Your task to perform on an android device: search for starred emails in the gmail app Image 0: 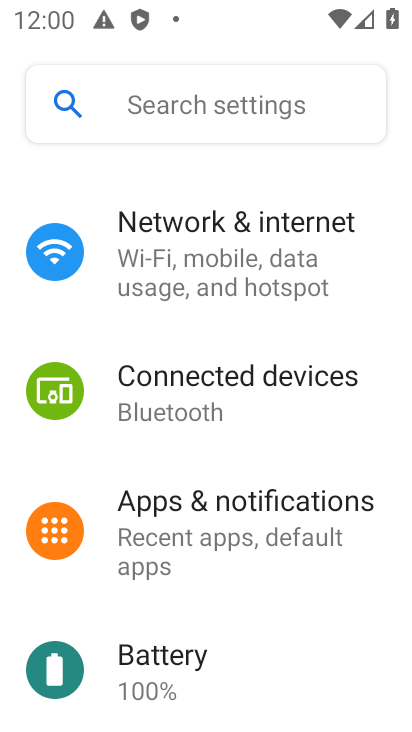
Step 0: press home button
Your task to perform on an android device: search for starred emails in the gmail app Image 1: 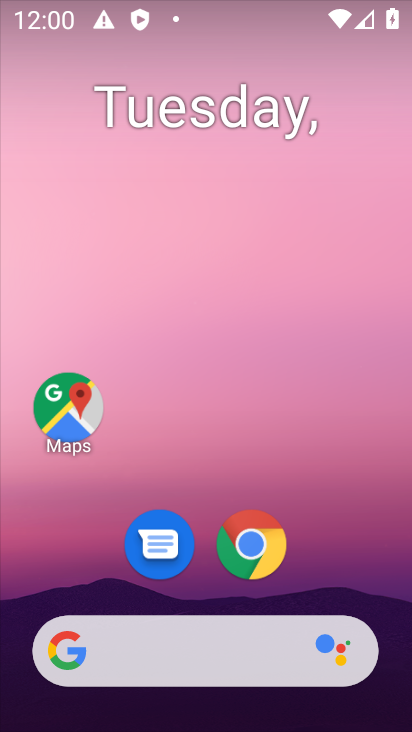
Step 1: drag from (338, 470) to (147, 27)
Your task to perform on an android device: search for starred emails in the gmail app Image 2: 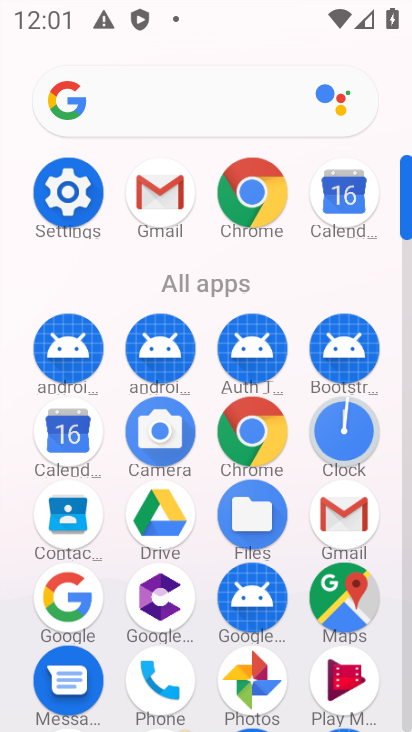
Step 2: click (169, 193)
Your task to perform on an android device: search for starred emails in the gmail app Image 3: 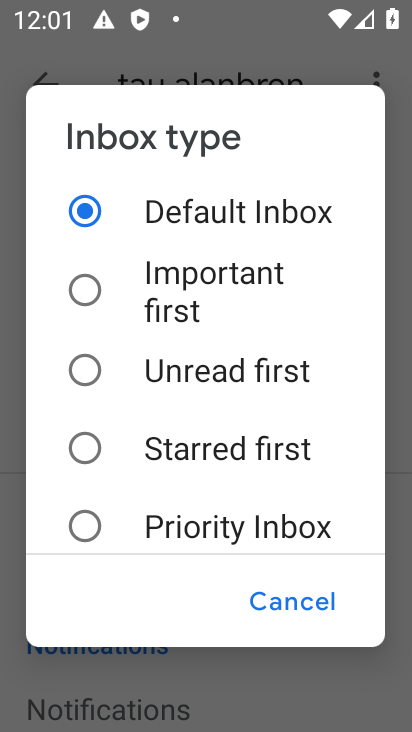
Step 3: click (289, 600)
Your task to perform on an android device: search for starred emails in the gmail app Image 4: 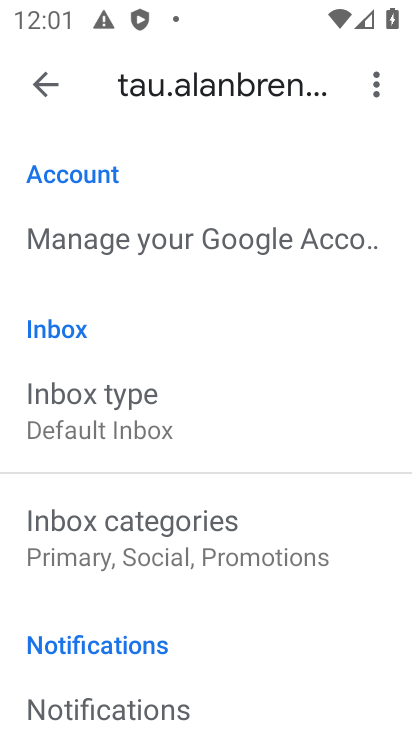
Step 4: click (39, 69)
Your task to perform on an android device: search for starred emails in the gmail app Image 5: 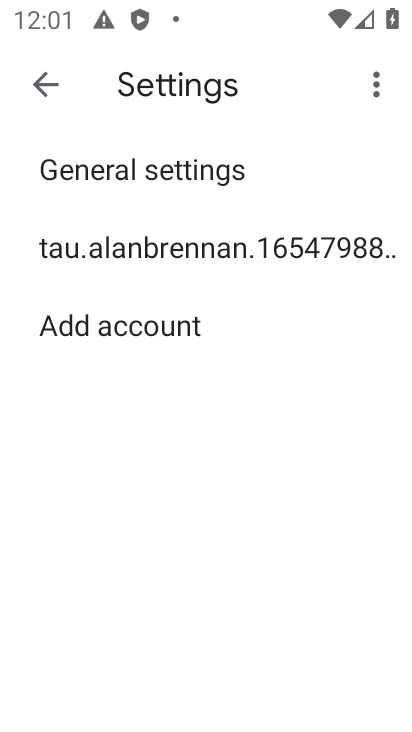
Step 5: click (48, 85)
Your task to perform on an android device: search for starred emails in the gmail app Image 6: 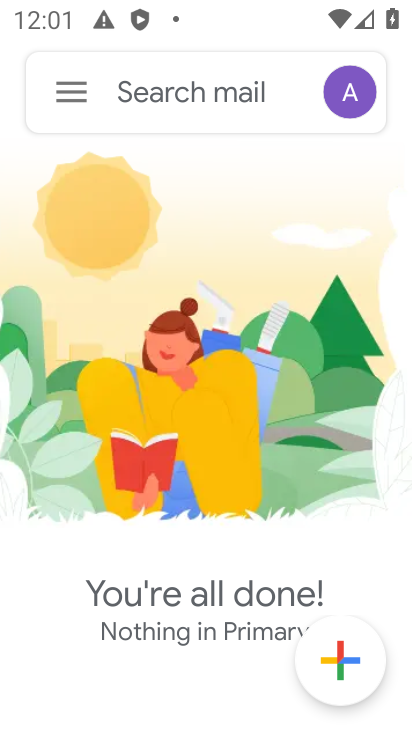
Step 6: click (59, 92)
Your task to perform on an android device: search for starred emails in the gmail app Image 7: 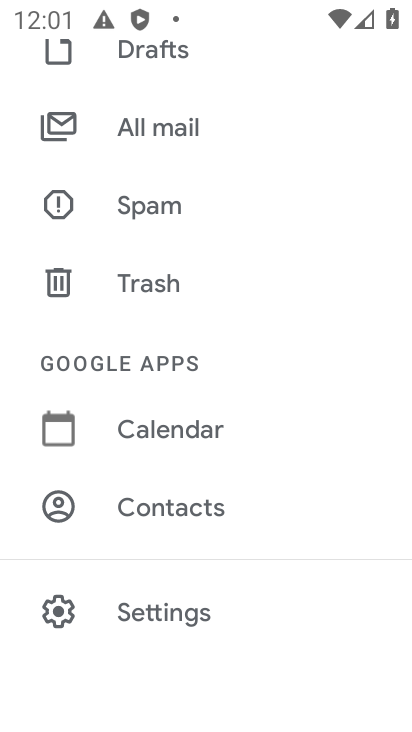
Step 7: drag from (230, 199) to (234, 631)
Your task to perform on an android device: search for starred emails in the gmail app Image 8: 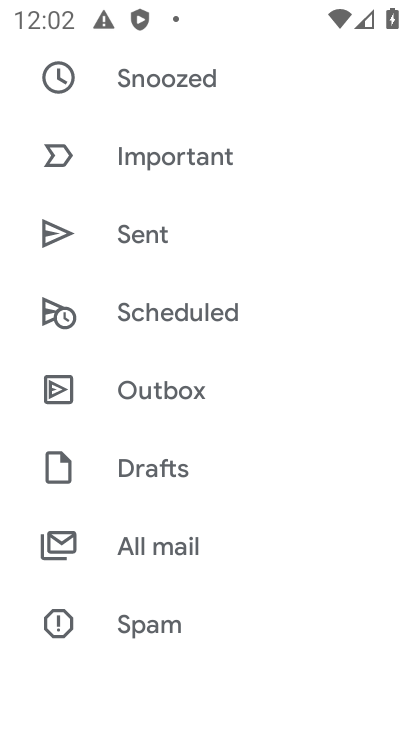
Step 8: drag from (232, 193) to (211, 554)
Your task to perform on an android device: search for starred emails in the gmail app Image 9: 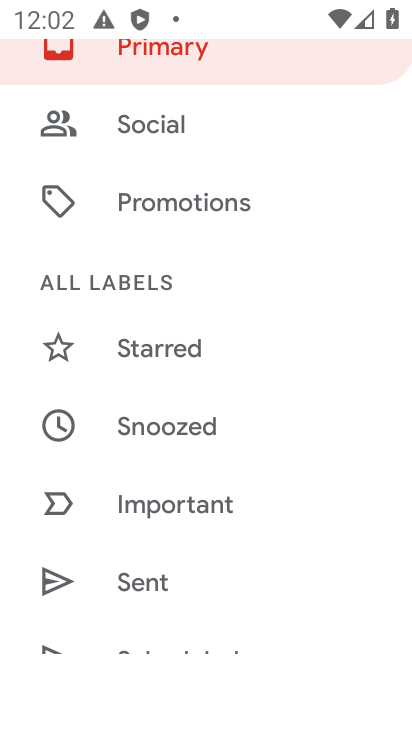
Step 9: click (167, 347)
Your task to perform on an android device: search for starred emails in the gmail app Image 10: 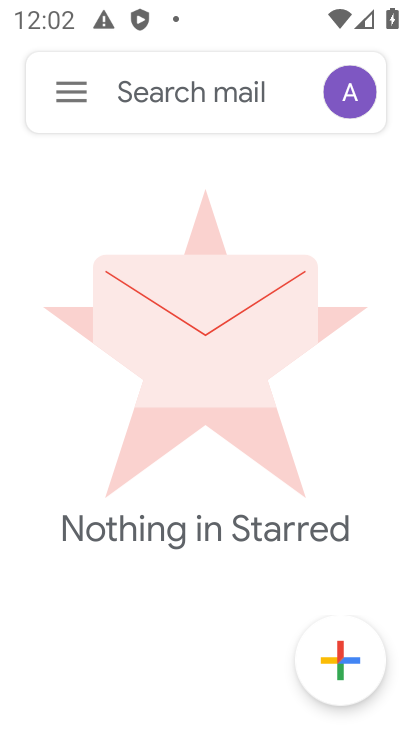
Step 10: task complete